Your task to perform on an android device: change text size in settings app Image 0: 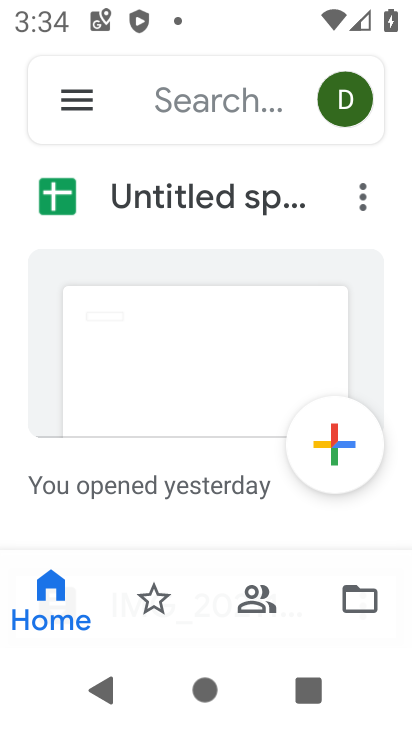
Step 0: press home button
Your task to perform on an android device: change text size in settings app Image 1: 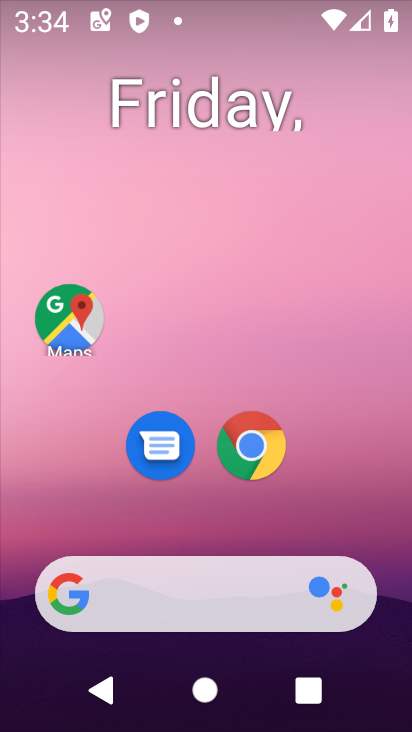
Step 1: drag from (185, 498) to (207, 105)
Your task to perform on an android device: change text size in settings app Image 2: 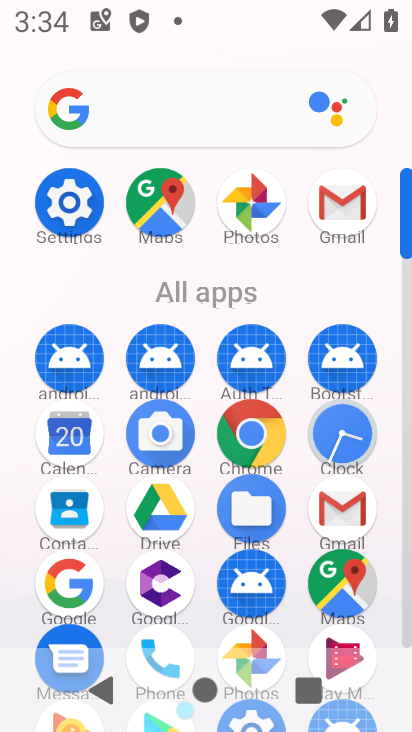
Step 2: click (88, 215)
Your task to perform on an android device: change text size in settings app Image 3: 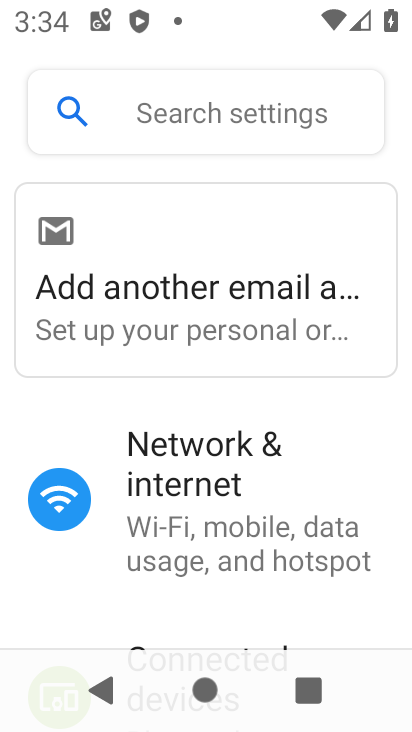
Step 3: drag from (196, 538) to (210, 265)
Your task to perform on an android device: change text size in settings app Image 4: 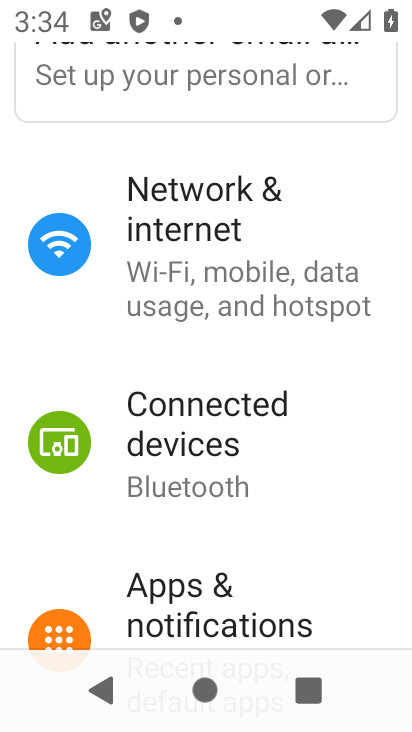
Step 4: drag from (194, 543) to (216, 301)
Your task to perform on an android device: change text size in settings app Image 5: 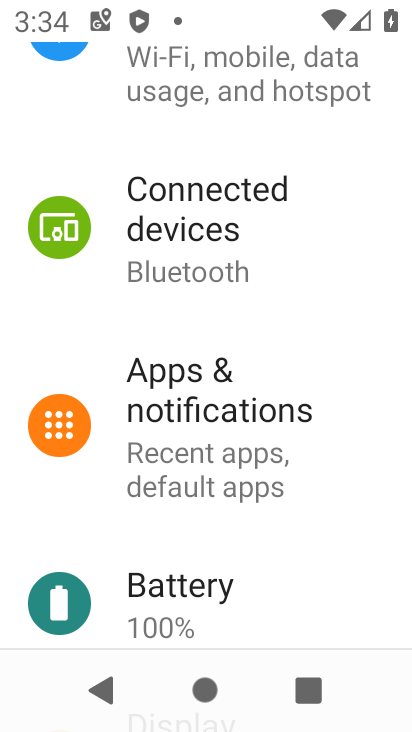
Step 5: drag from (227, 519) to (254, 246)
Your task to perform on an android device: change text size in settings app Image 6: 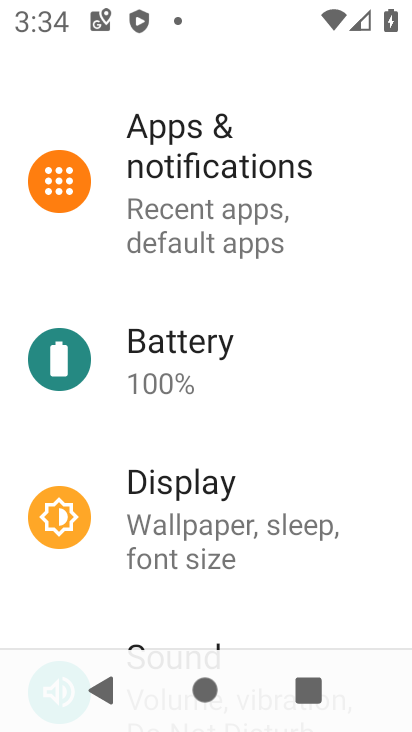
Step 6: drag from (250, 539) to (250, 318)
Your task to perform on an android device: change text size in settings app Image 7: 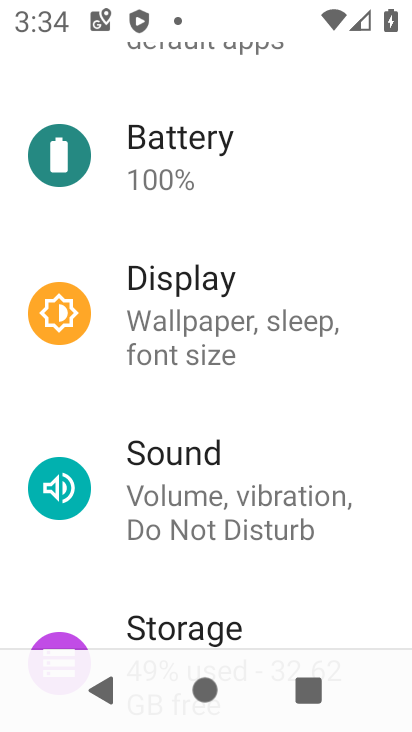
Step 7: drag from (191, 547) to (210, 362)
Your task to perform on an android device: change text size in settings app Image 8: 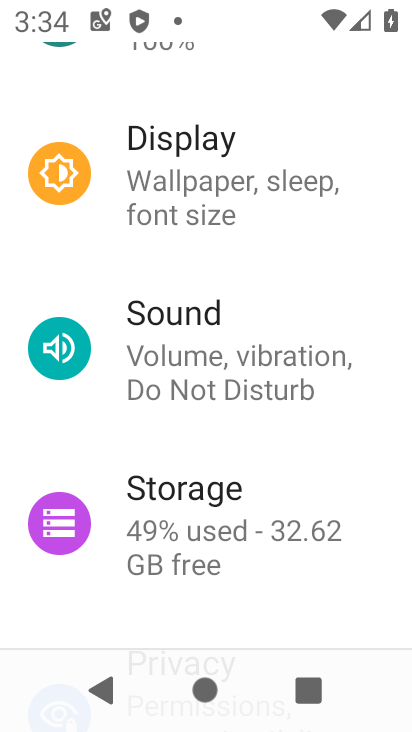
Step 8: click (198, 196)
Your task to perform on an android device: change text size in settings app Image 9: 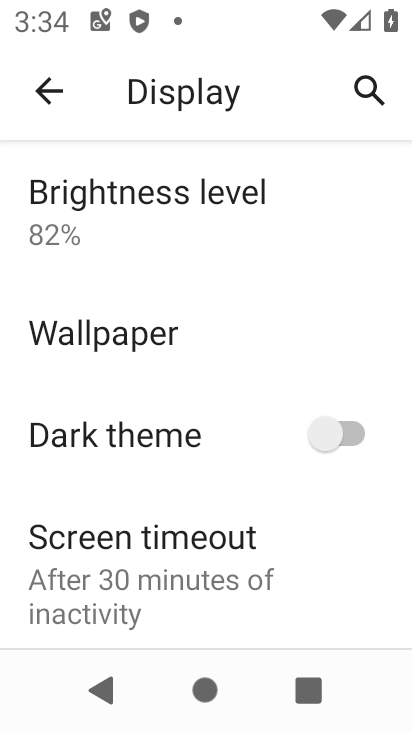
Step 9: drag from (107, 564) to (153, 303)
Your task to perform on an android device: change text size in settings app Image 10: 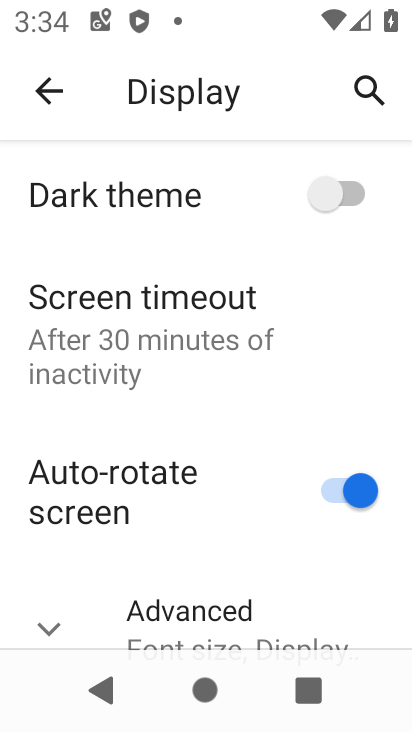
Step 10: drag from (144, 502) to (161, 321)
Your task to perform on an android device: change text size in settings app Image 11: 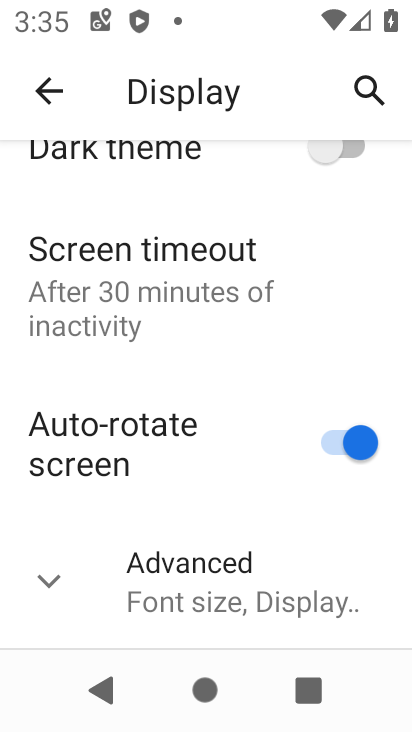
Step 11: click (71, 582)
Your task to perform on an android device: change text size in settings app Image 12: 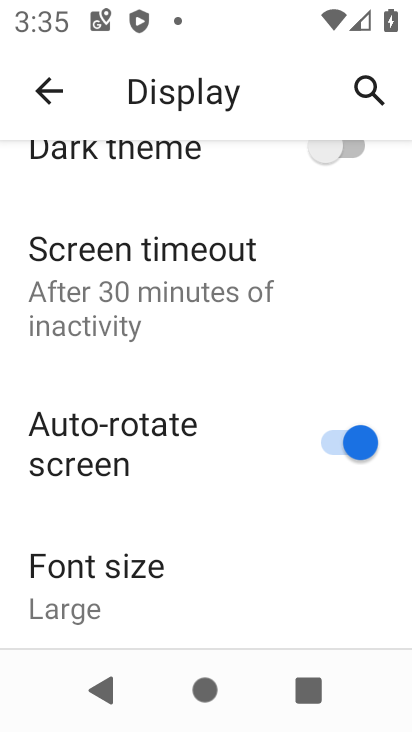
Step 12: click (116, 574)
Your task to perform on an android device: change text size in settings app Image 13: 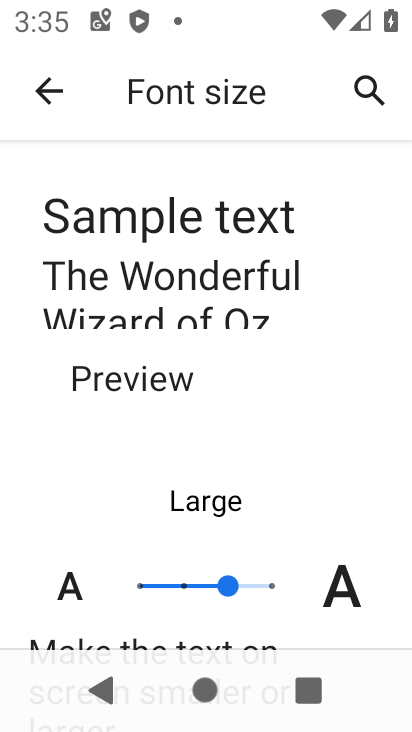
Step 13: click (172, 589)
Your task to perform on an android device: change text size in settings app Image 14: 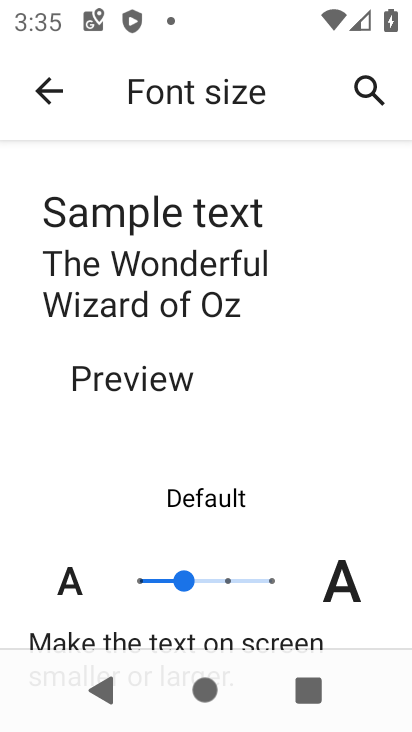
Step 14: task complete